Your task to perform on an android device: Add "asus zenbook" to the cart on newegg Image 0: 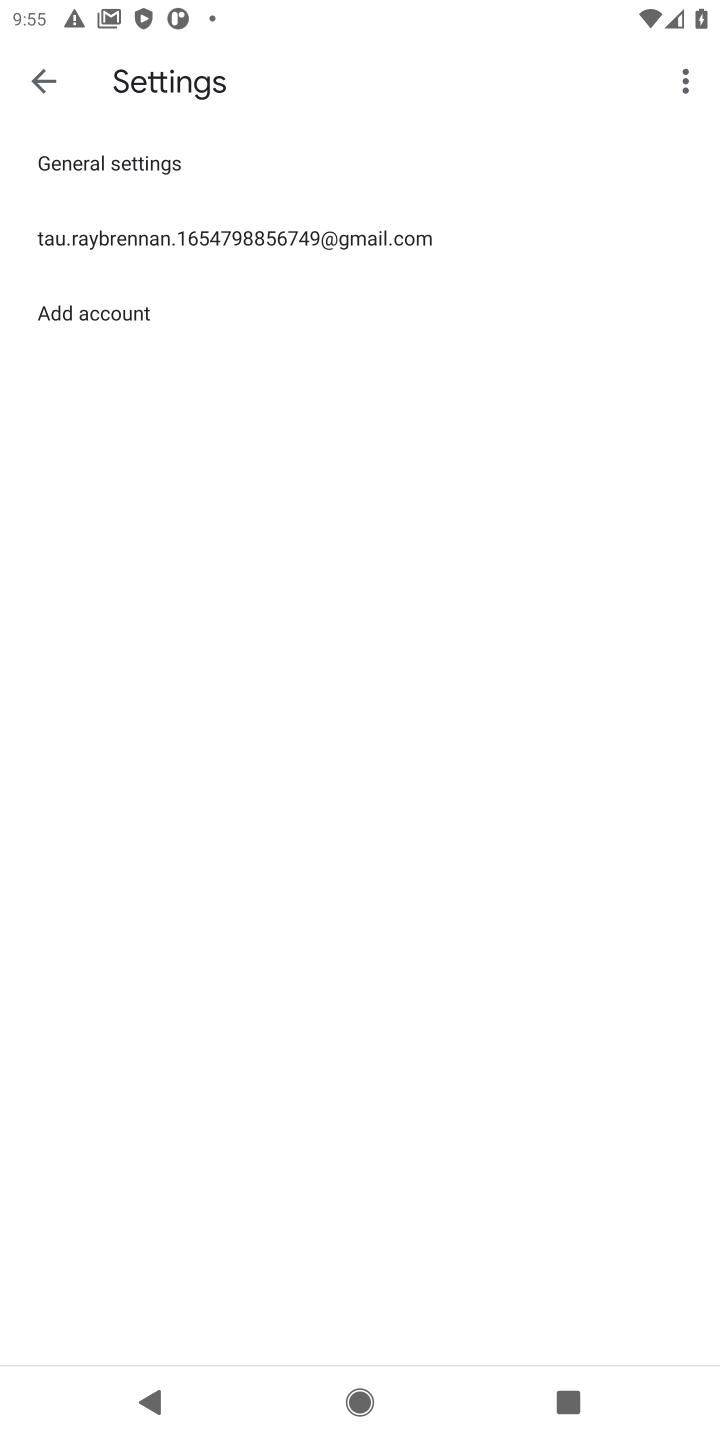
Step 0: press home button
Your task to perform on an android device: Add "asus zenbook" to the cart on newegg Image 1: 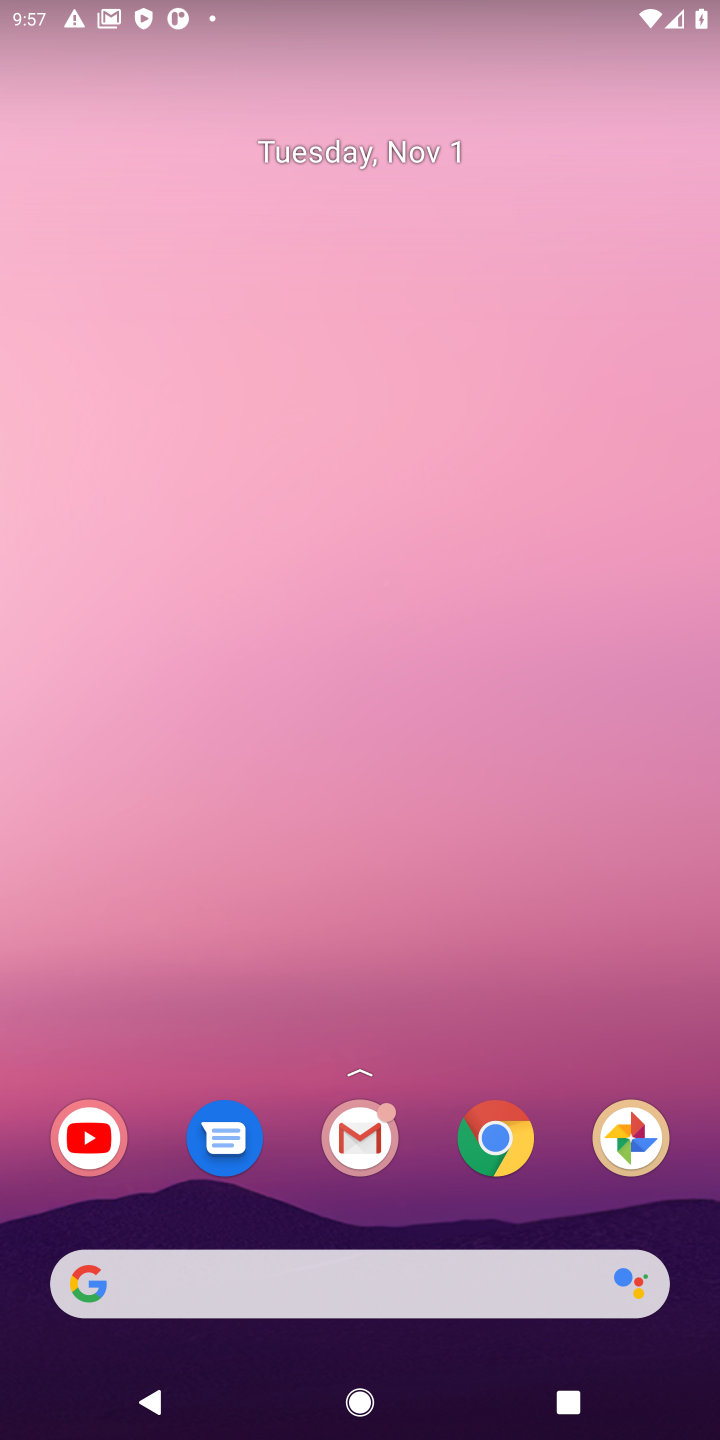
Step 1: click (488, 1140)
Your task to perform on an android device: Add "asus zenbook" to the cart on newegg Image 2: 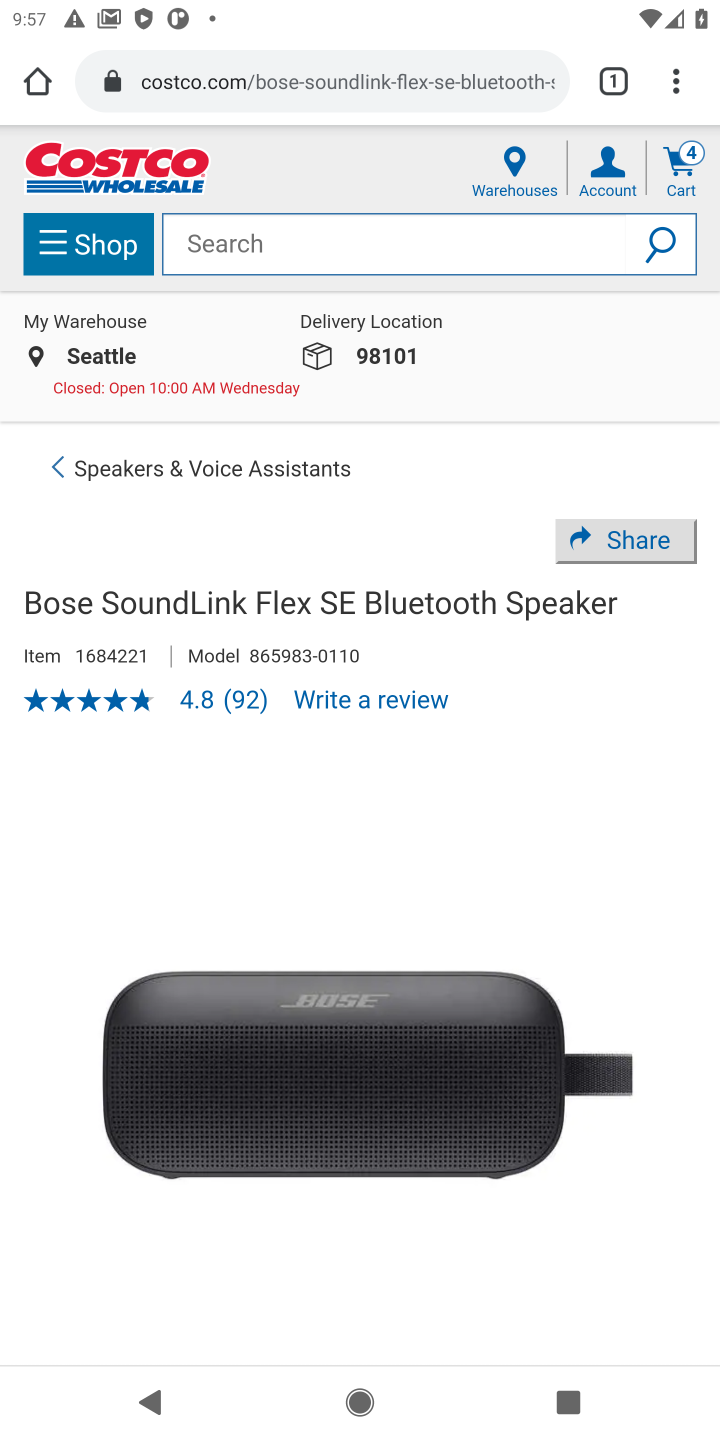
Step 2: click (213, 85)
Your task to perform on an android device: Add "asus zenbook" to the cart on newegg Image 3: 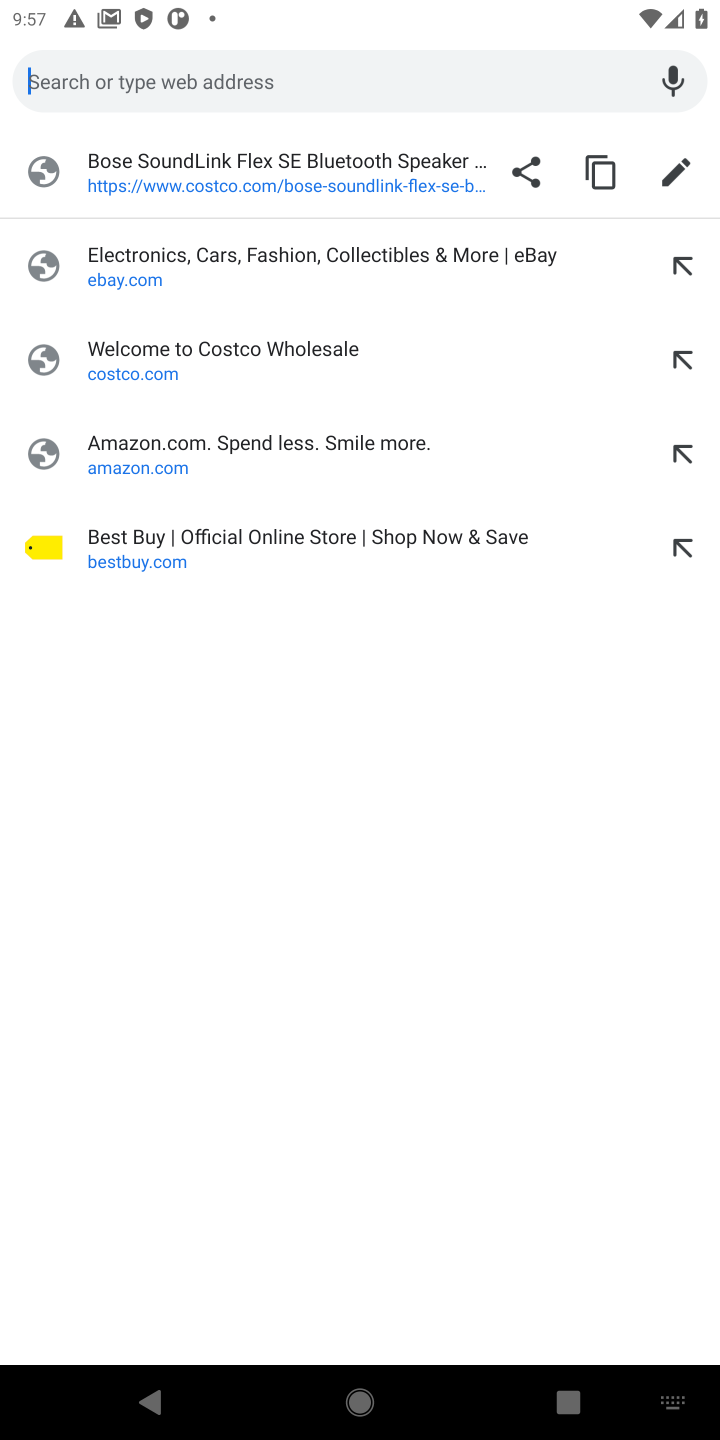
Step 3: type "newegg.com"
Your task to perform on an android device: Add "asus zenbook" to the cart on newegg Image 4: 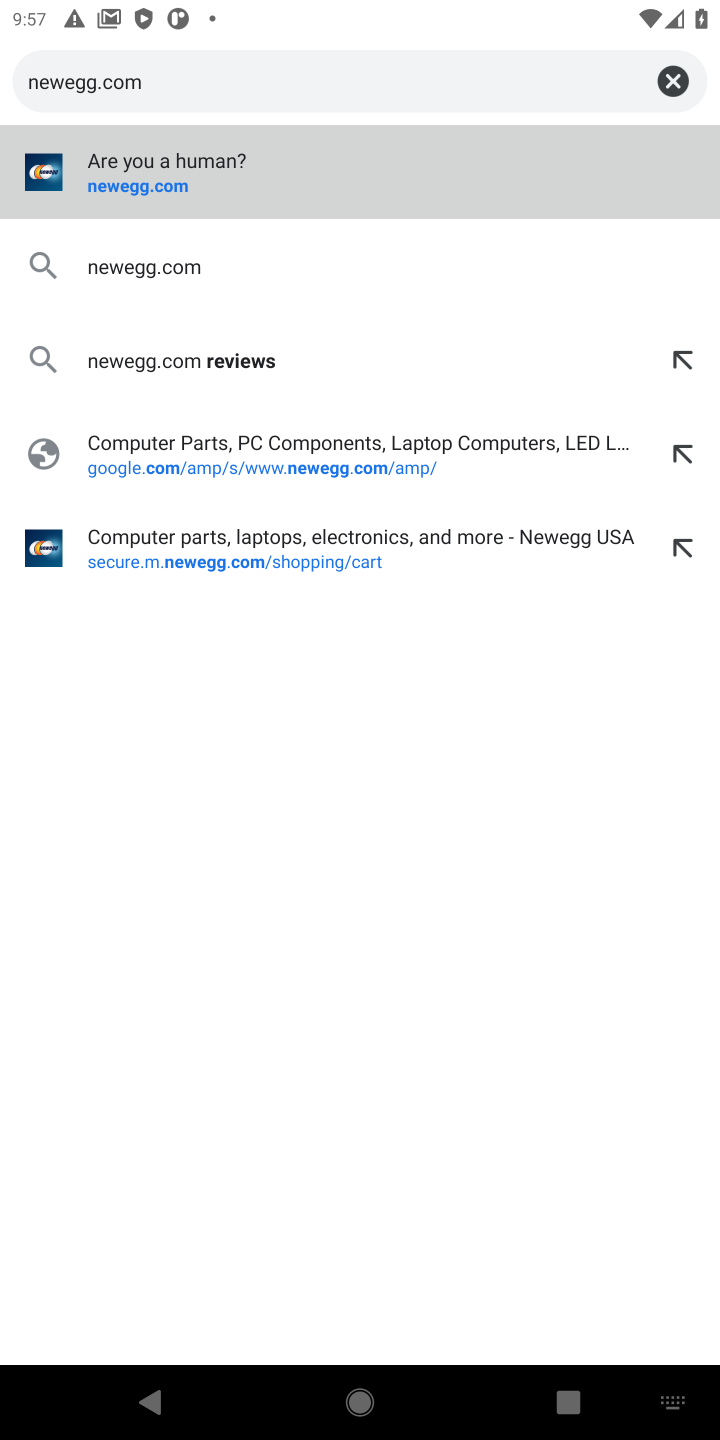
Step 4: click (166, 274)
Your task to perform on an android device: Add "asus zenbook" to the cart on newegg Image 5: 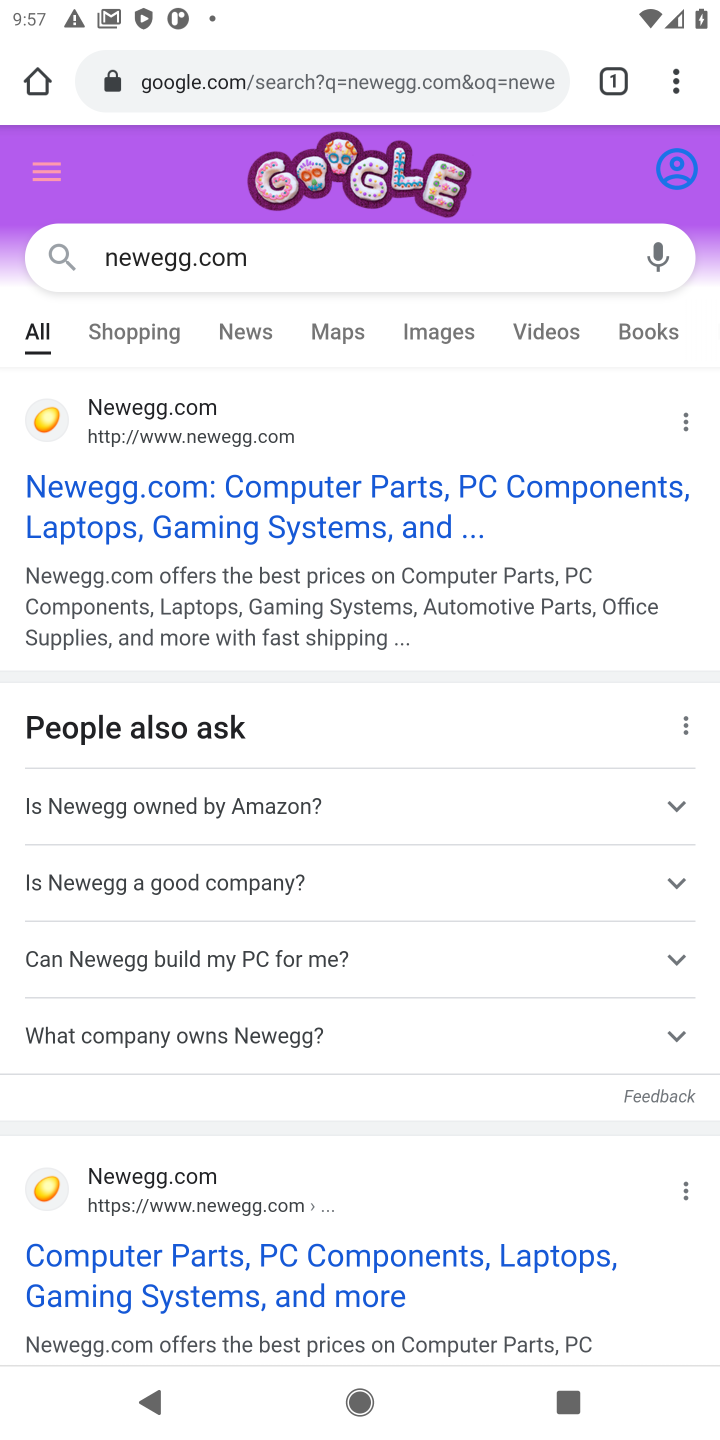
Step 5: click (181, 1201)
Your task to perform on an android device: Add "asus zenbook" to the cart on newegg Image 6: 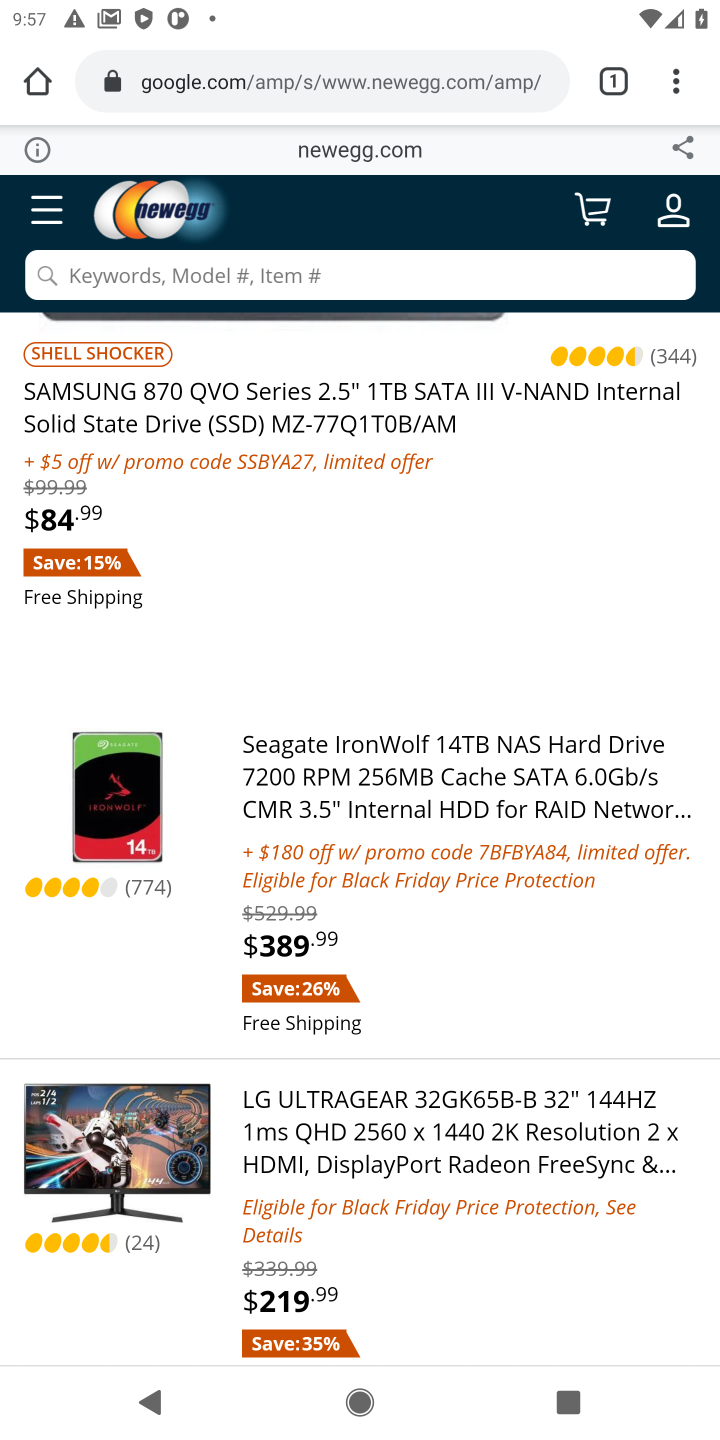
Step 6: click (194, 275)
Your task to perform on an android device: Add "asus zenbook" to the cart on newegg Image 7: 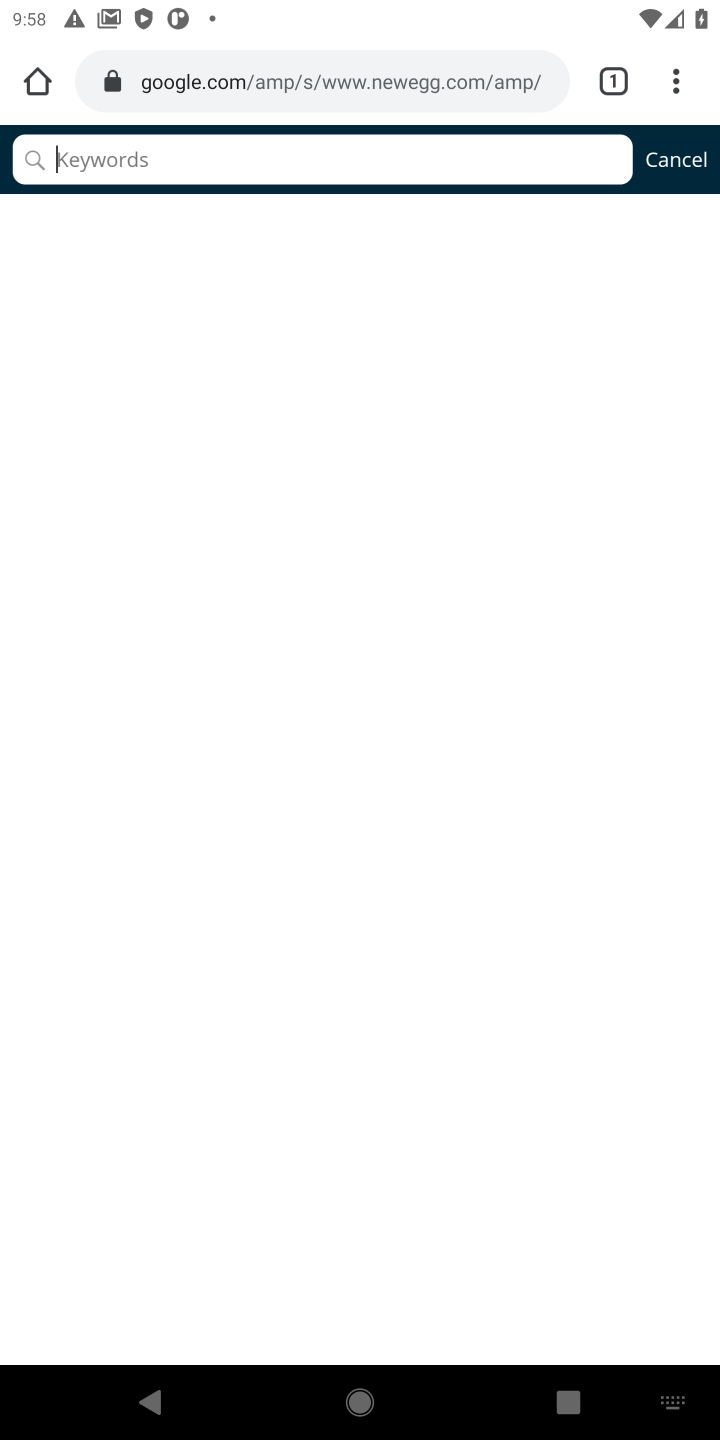
Step 7: type "asus zenbook"
Your task to perform on an android device: Add "asus zenbook" to the cart on newegg Image 8: 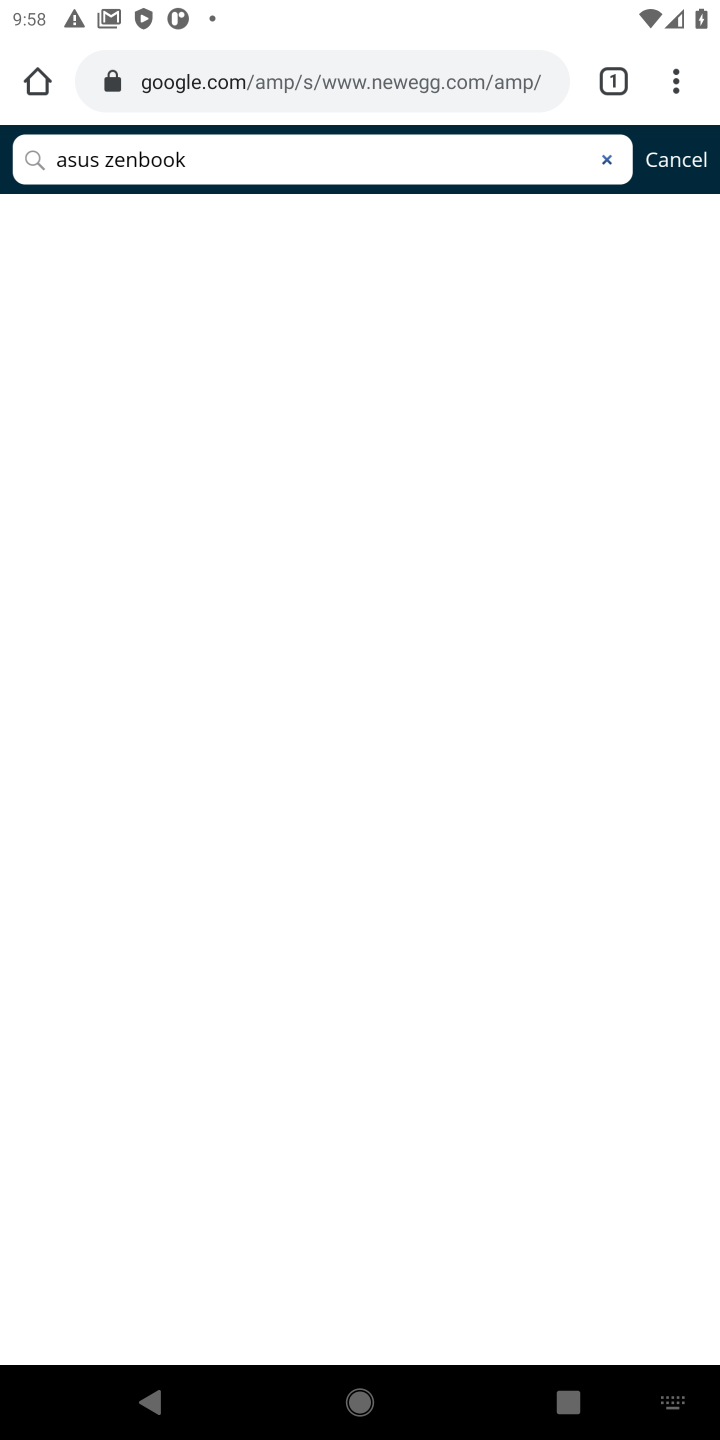
Step 8: click (39, 157)
Your task to perform on an android device: Add "asus zenbook" to the cart on newegg Image 9: 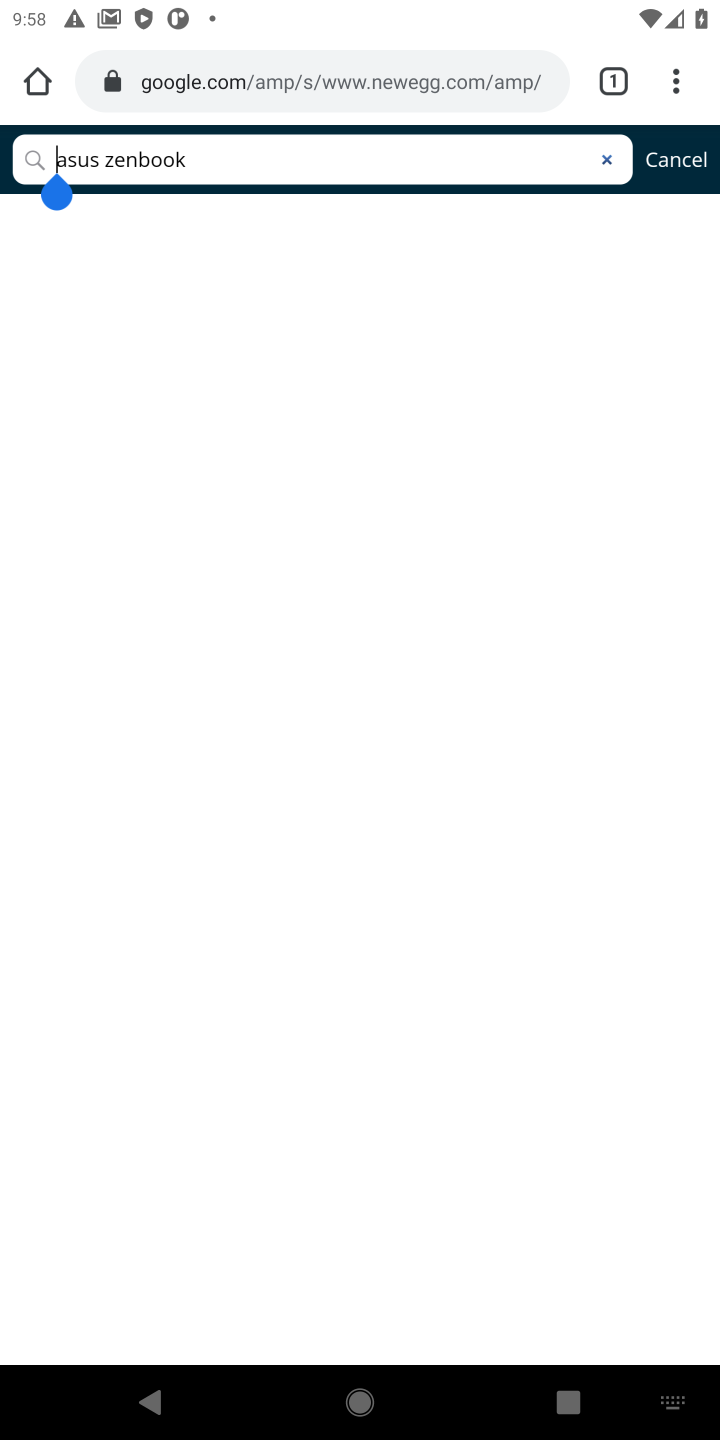
Step 9: task complete